Your task to perform on an android device: Go to battery settings Image 0: 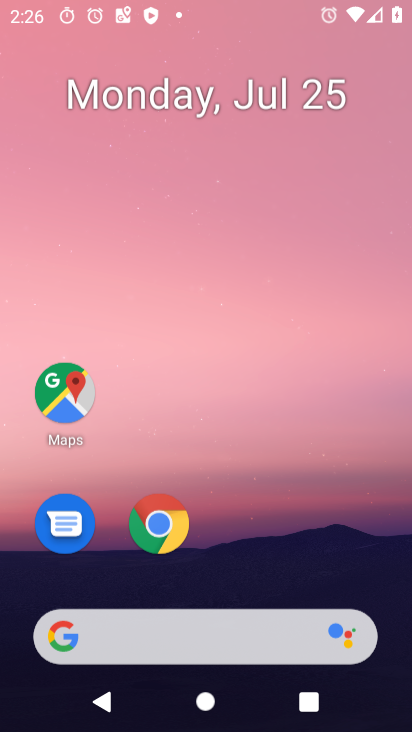
Step 0: press home button
Your task to perform on an android device: Go to battery settings Image 1: 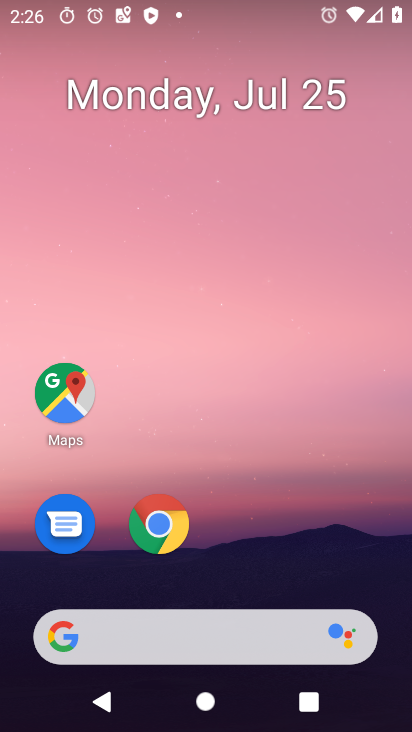
Step 1: drag from (336, 571) to (243, 18)
Your task to perform on an android device: Go to battery settings Image 2: 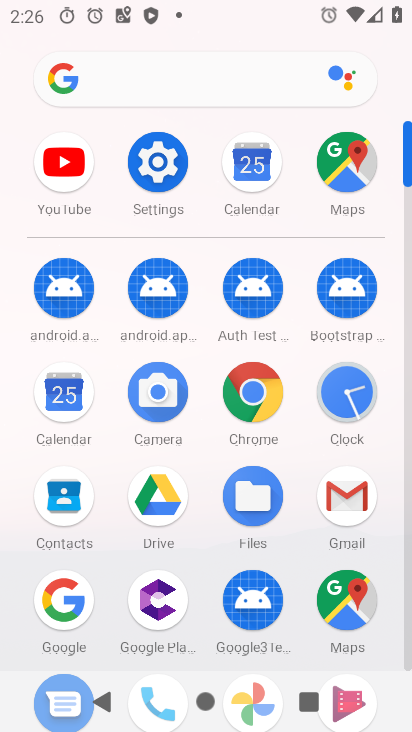
Step 2: click (156, 156)
Your task to perform on an android device: Go to battery settings Image 3: 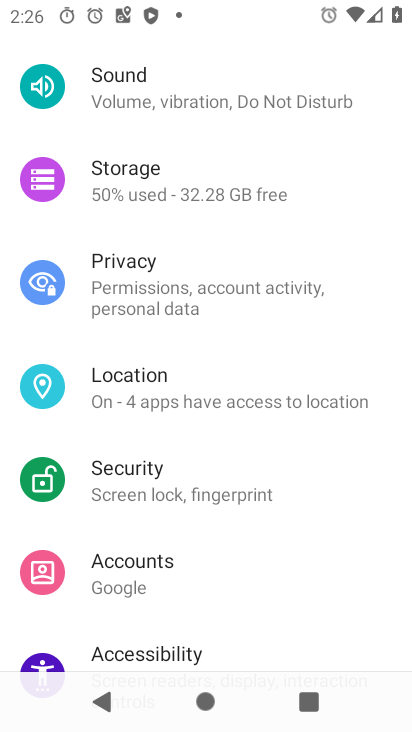
Step 3: drag from (284, 169) to (311, 723)
Your task to perform on an android device: Go to battery settings Image 4: 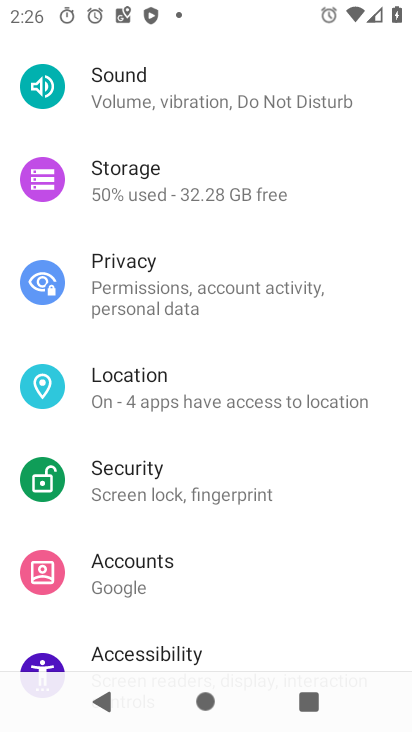
Step 4: drag from (278, 257) to (317, 731)
Your task to perform on an android device: Go to battery settings Image 5: 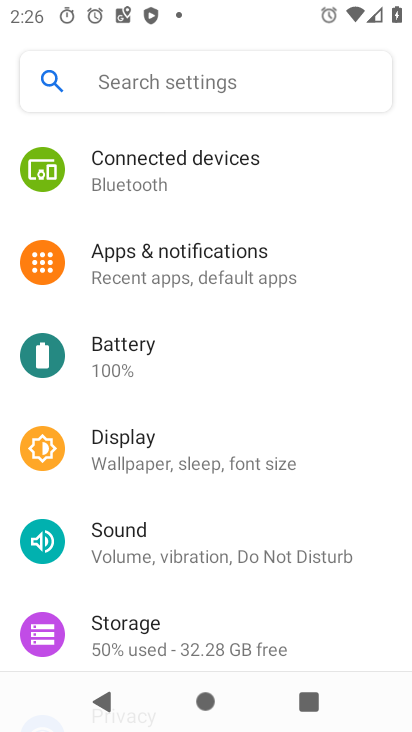
Step 5: click (123, 348)
Your task to perform on an android device: Go to battery settings Image 6: 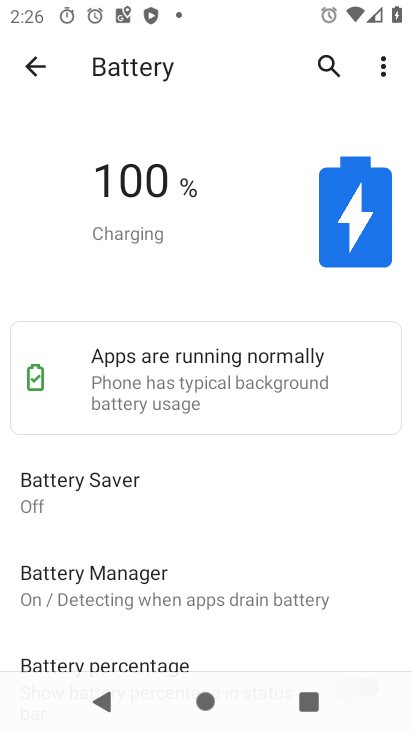
Step 6: task complete